Your task to perform on an android device: Open the map Image 0: 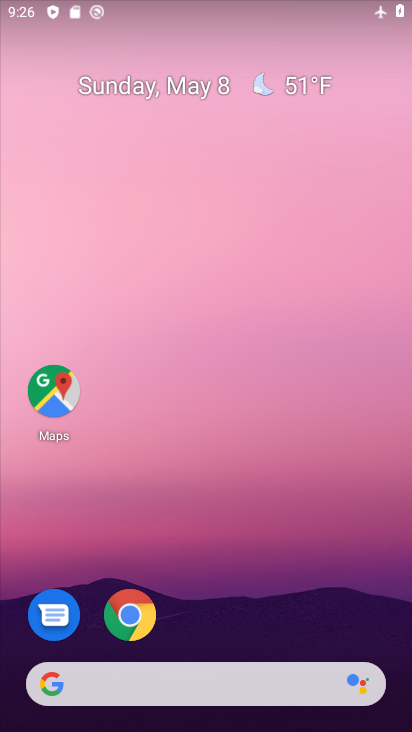
Step 0: drag from (233, 547) to (240, 190)
Your task to perform on an android device: Open the map Image 1: 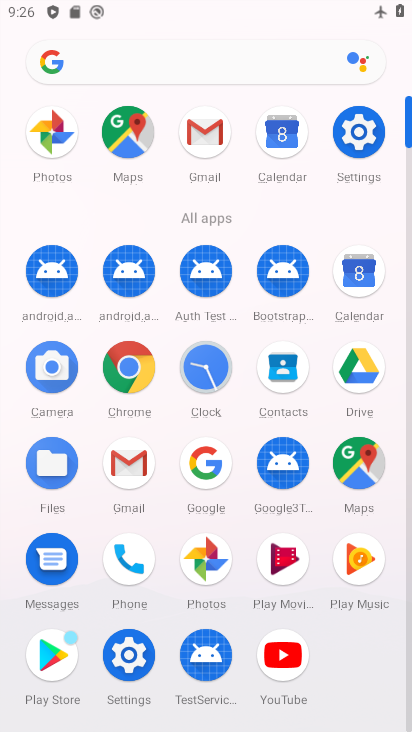
Step 1: click (108, 137)
Your task to perform on an android device: Open the map Image 2: 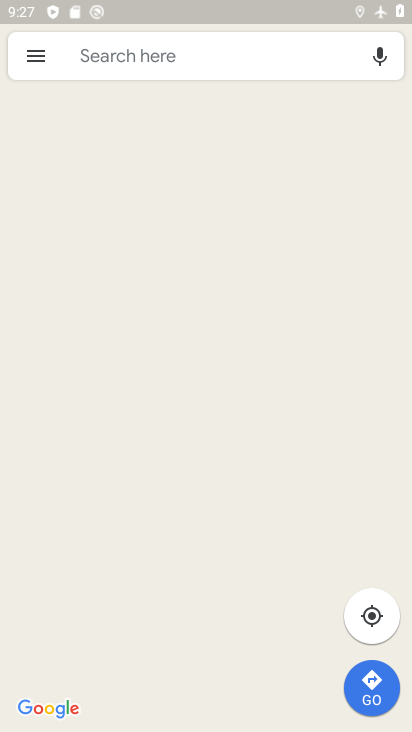
Step 2: task complete